Your task to perform on an android device: Open calendar and show me the third week of next month Image 0: 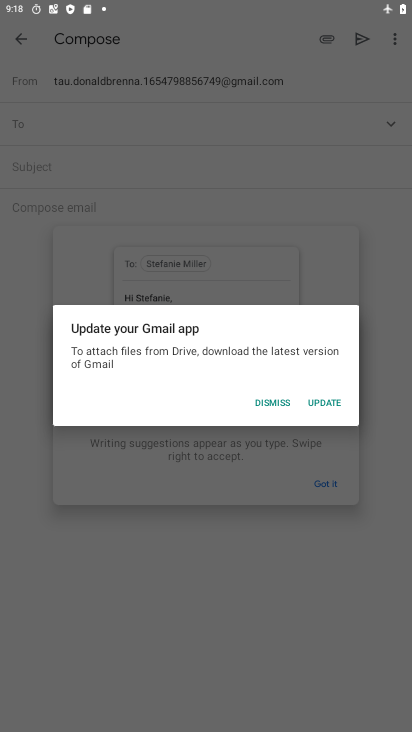
Step 0: press home button
Your task to perform on an android device: Open calendar and show me the third week of next month Image 1: 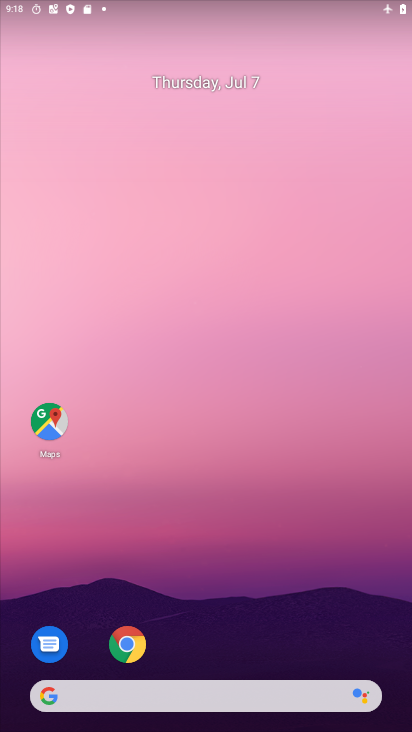
Step 1: drag from (344, 604) to (311, 162)
Your task to perform on an android device: Open calendar and show me the third week of next month Image 2: 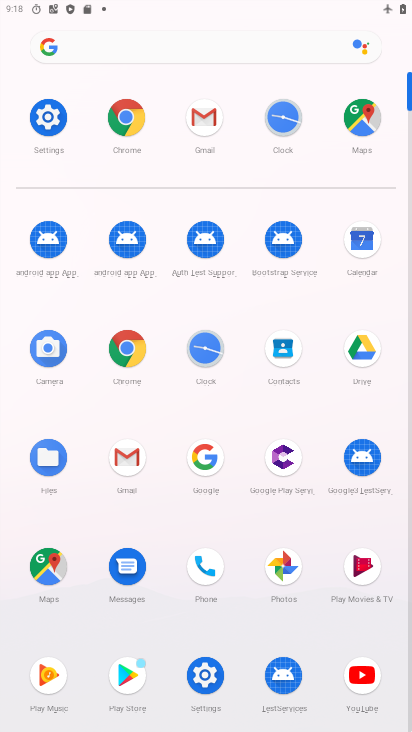
Step 2: click (359, 241)
Your task to perform on an android device: Open calendar and show me the third week of next month Image 3: 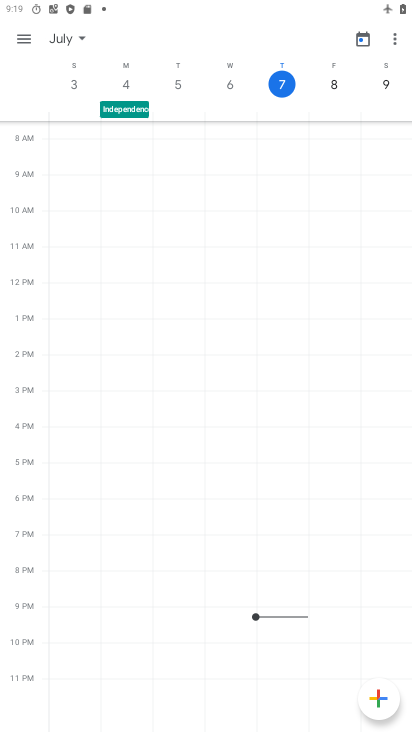
Step 3: click (67, 34)
Your task to perform on an android device: Open calendar and show me the third week of next month Image 4: 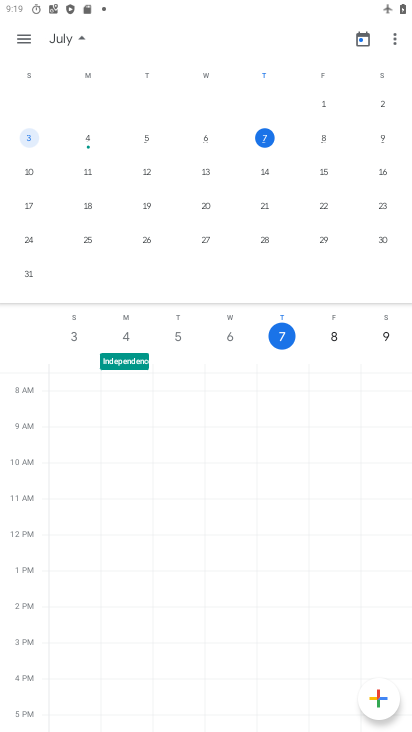
Step 4: drag from (364, 175) to (0, 217)
Your task to perform on an android device: Open calendar and show me the third week of next month Image 5: 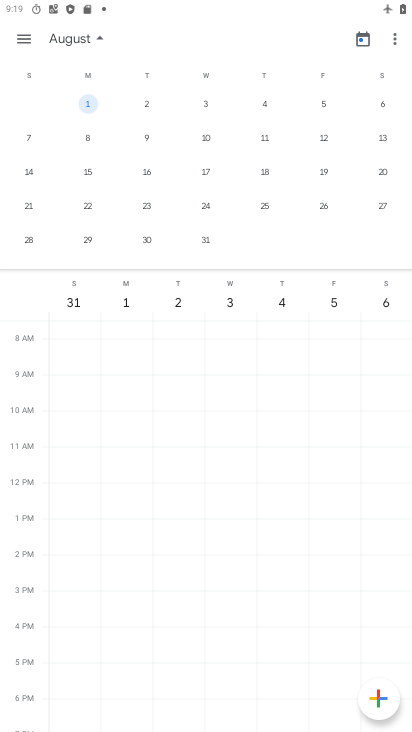
Step 5: click (25, 169)
Your task to perform on an android device: Open calendar and show me the third week of next month Image 6: 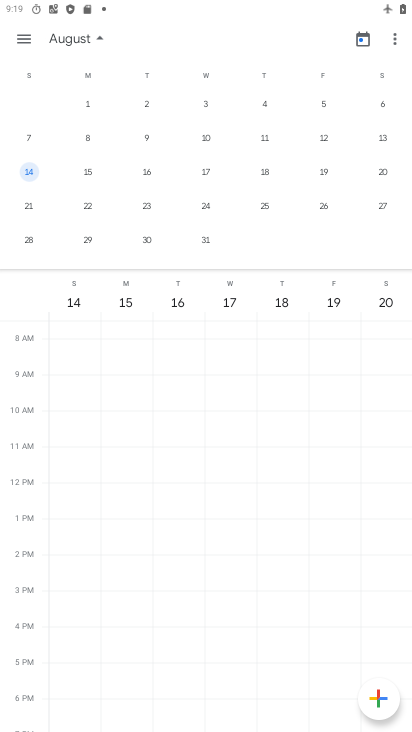
Step 6: click (22, 36)
Your task to perform on an android device: Open calendar and show me the third week of next month Image 7: 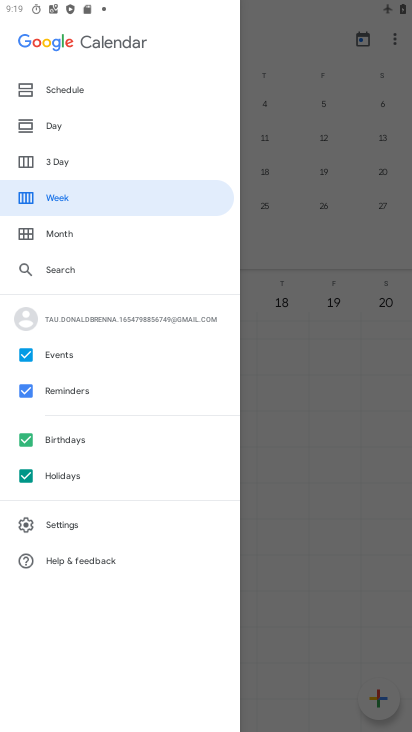
Step 7: click (58, 193)
Your task to perform on an android device: Open calendar and show me the third week of next month Image 8: 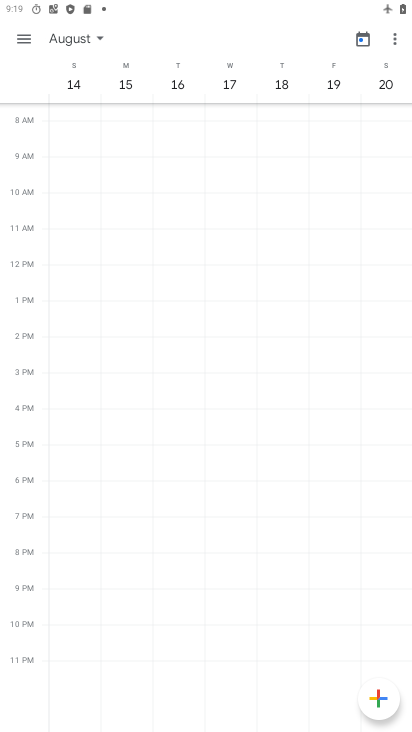
Step 8: task complete